Your task to perform on an android device: uninstall "Messenger Lite" Image 0: 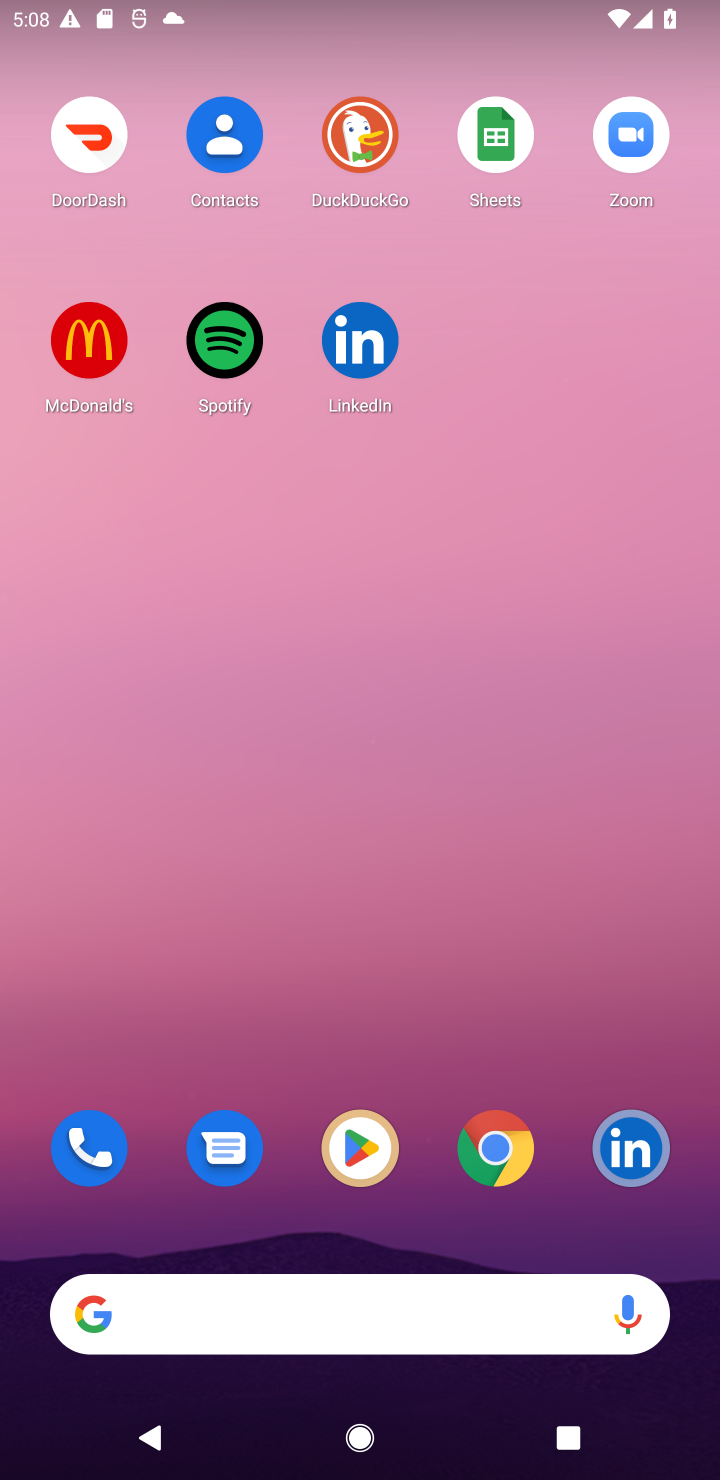
Step 0: drag from (296, 1213) to (177, 25)
Your task to perform on an android device: uninstall "Messenger Lite" Image 1: 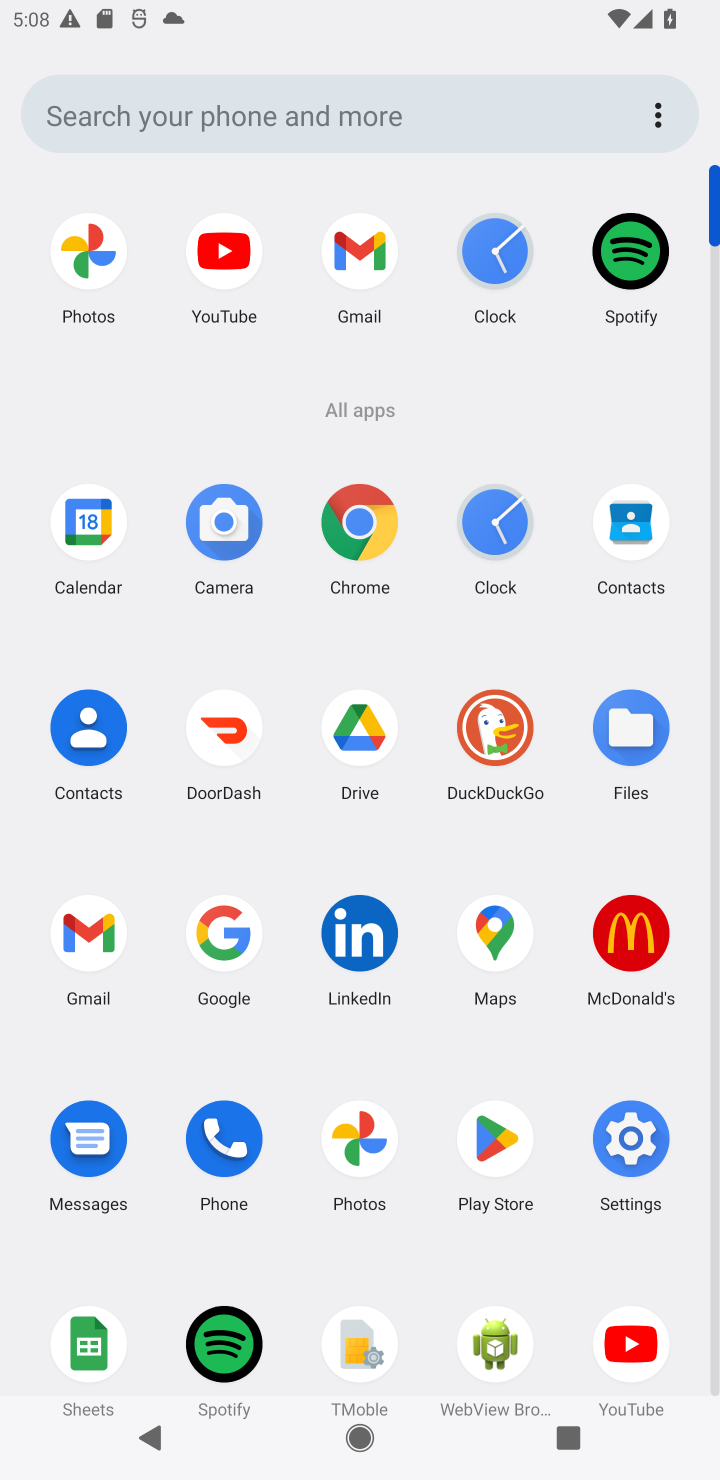
Step 1: click (515, 1129)
Your task to perform on an android device: uninstall "Messenger Lite" Image 2: 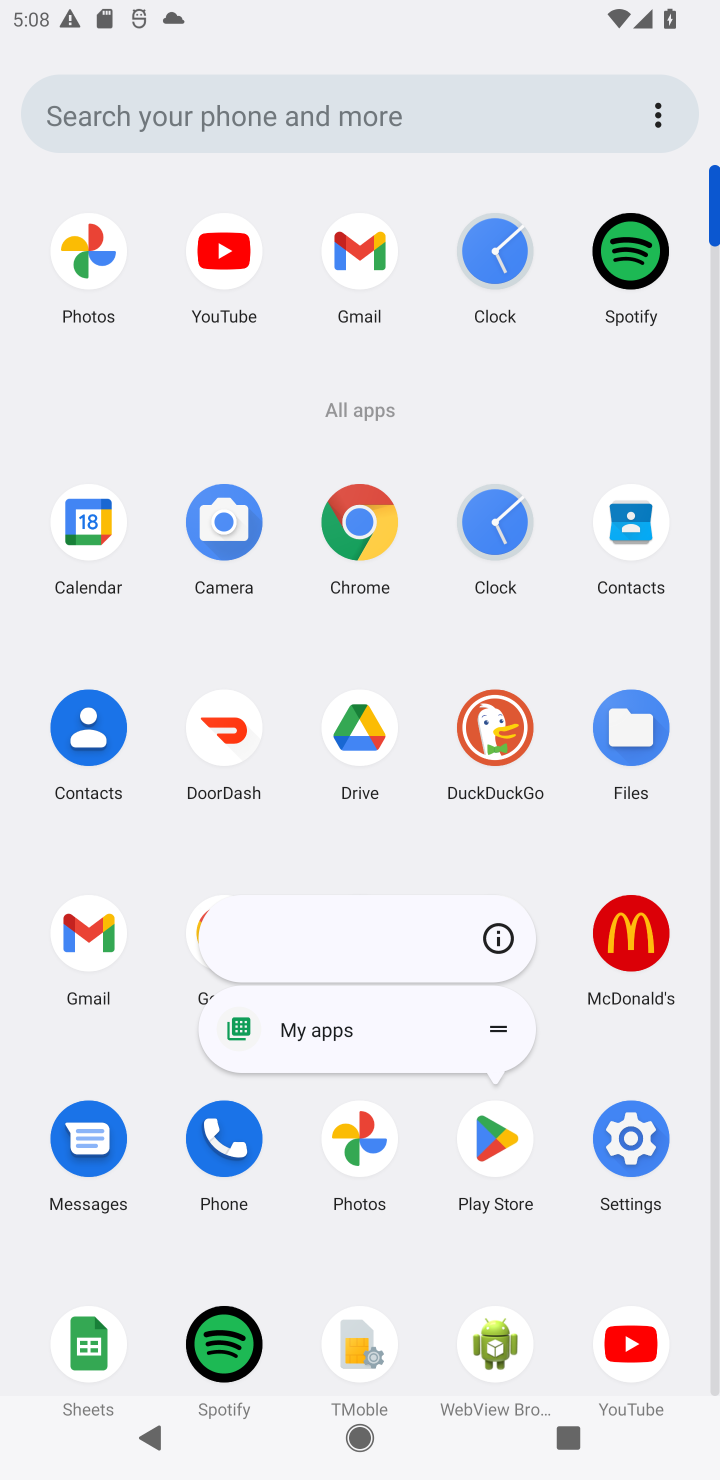
Step 2: click (484, 1153)
Your task to perform on an android device: uninstall "Messenger Lite" Image 3: 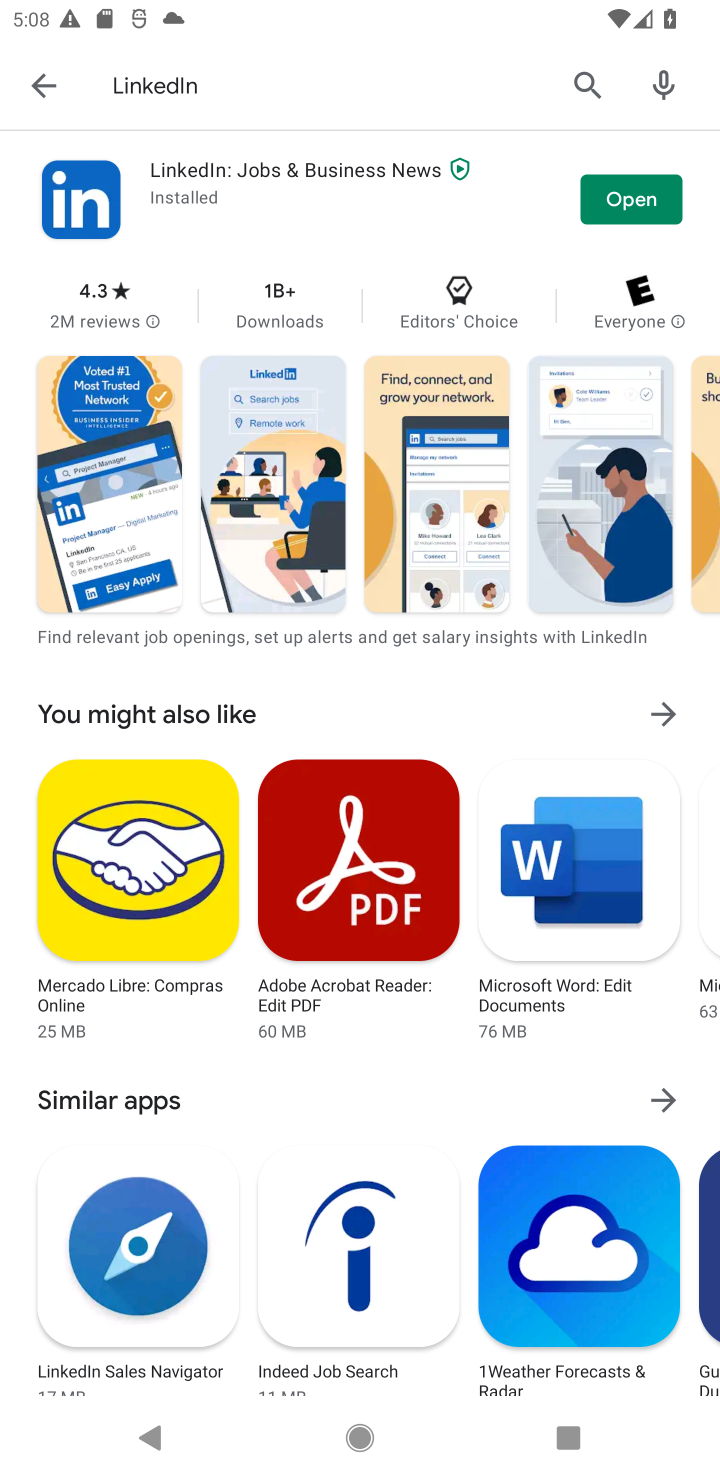
Step 3: press back button
Your task to perform on an android device: uninstall "Messenger Lite" Image 4: 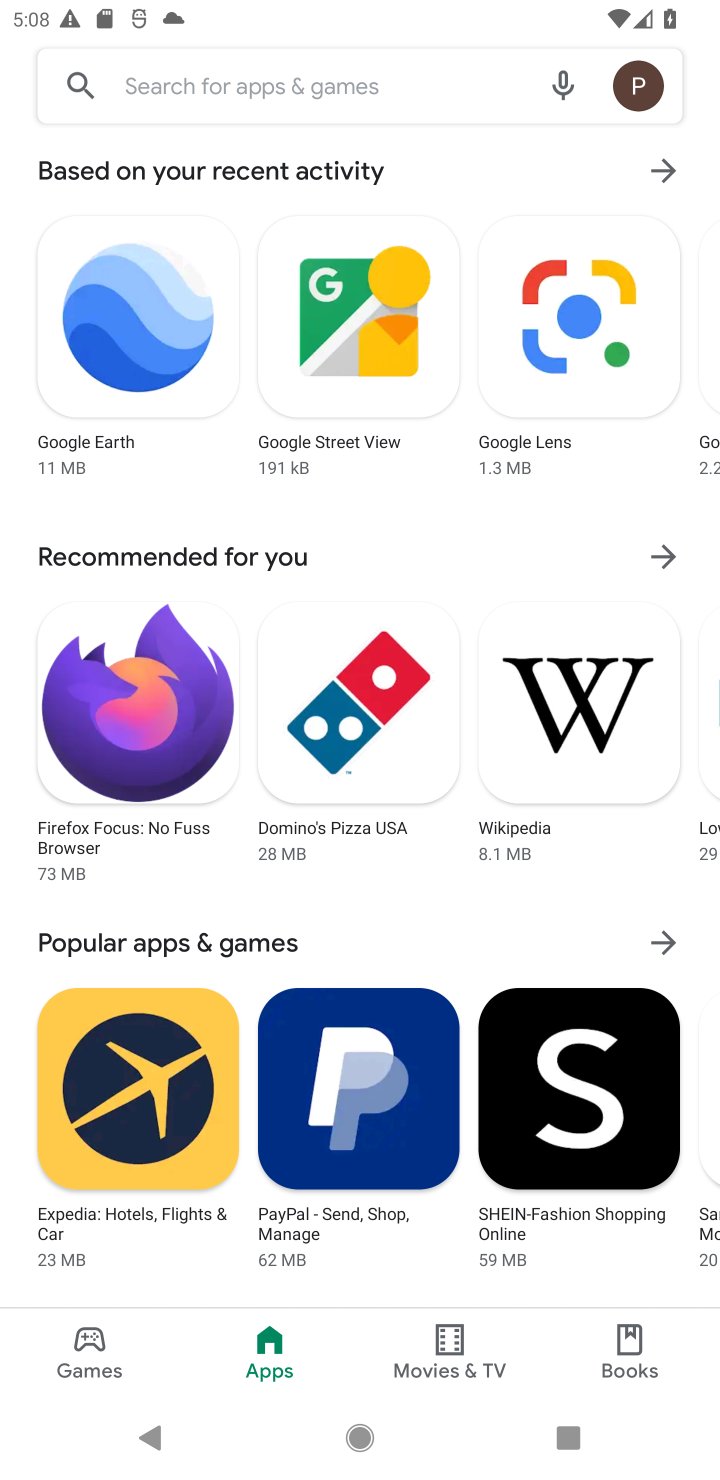
Step 4: click (385, 87)
Your task to perform on an android device: uninstall "Messenger Lite" Image 5: 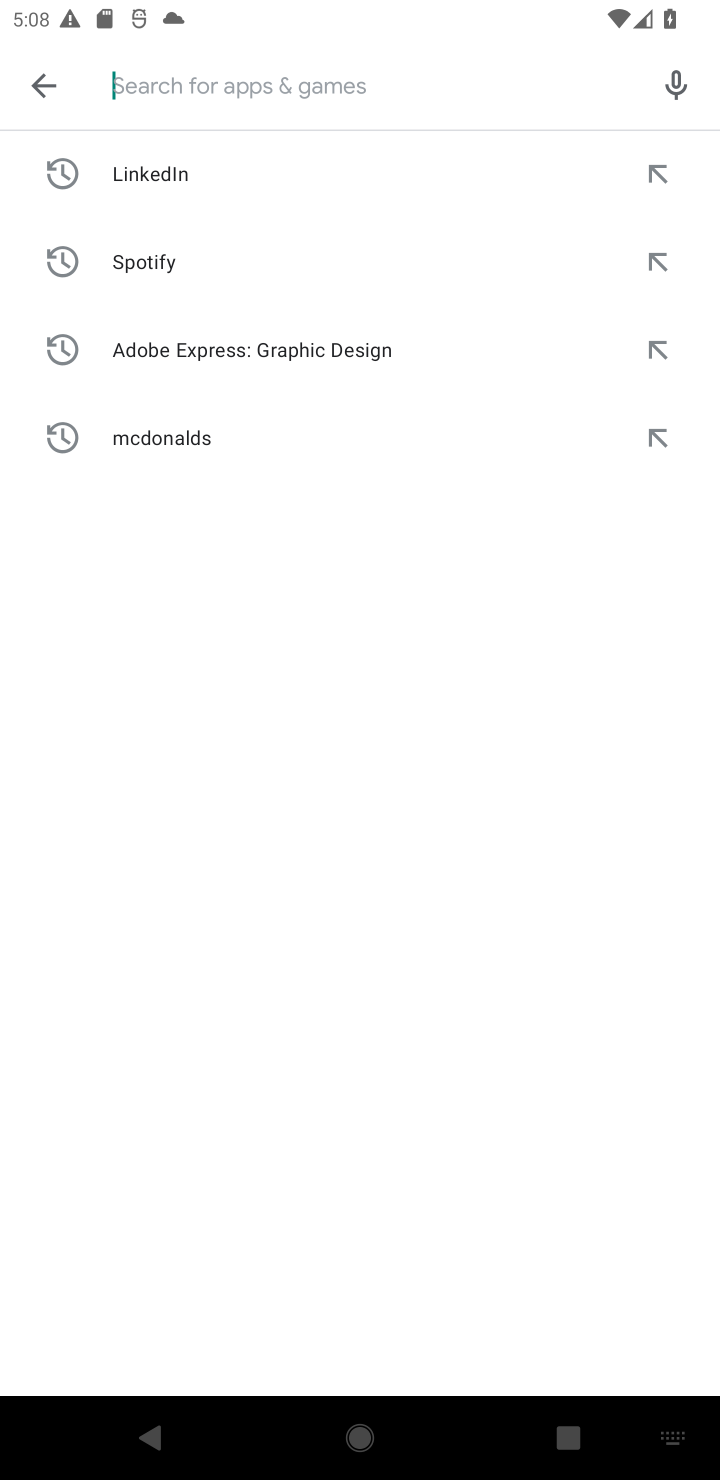
Step 5: type "Messenger Lite"
Your task to perform on an android device: uninstall "Messenger Lite" Image 6: 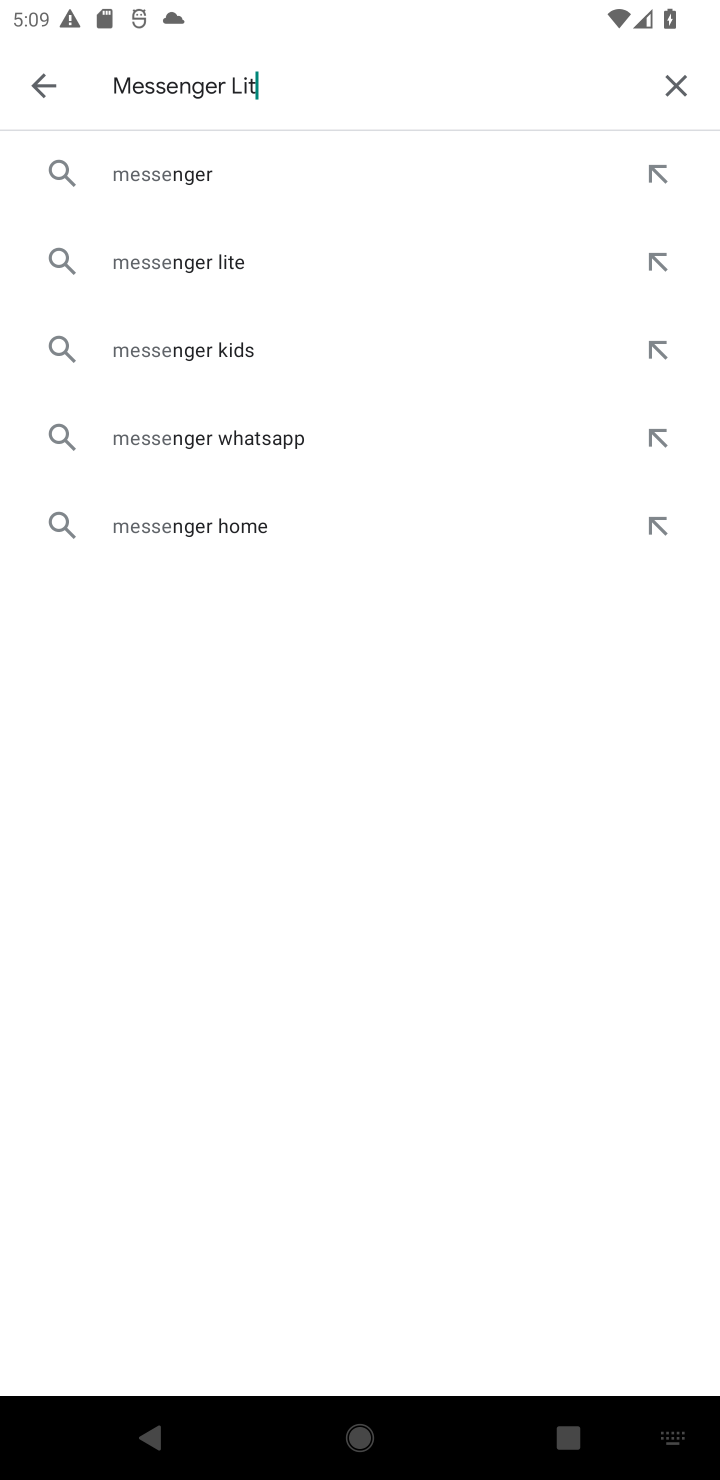
Step 6: press enter
Your task to perform on an android device: uninstall "Messenger Lite" Image 7: 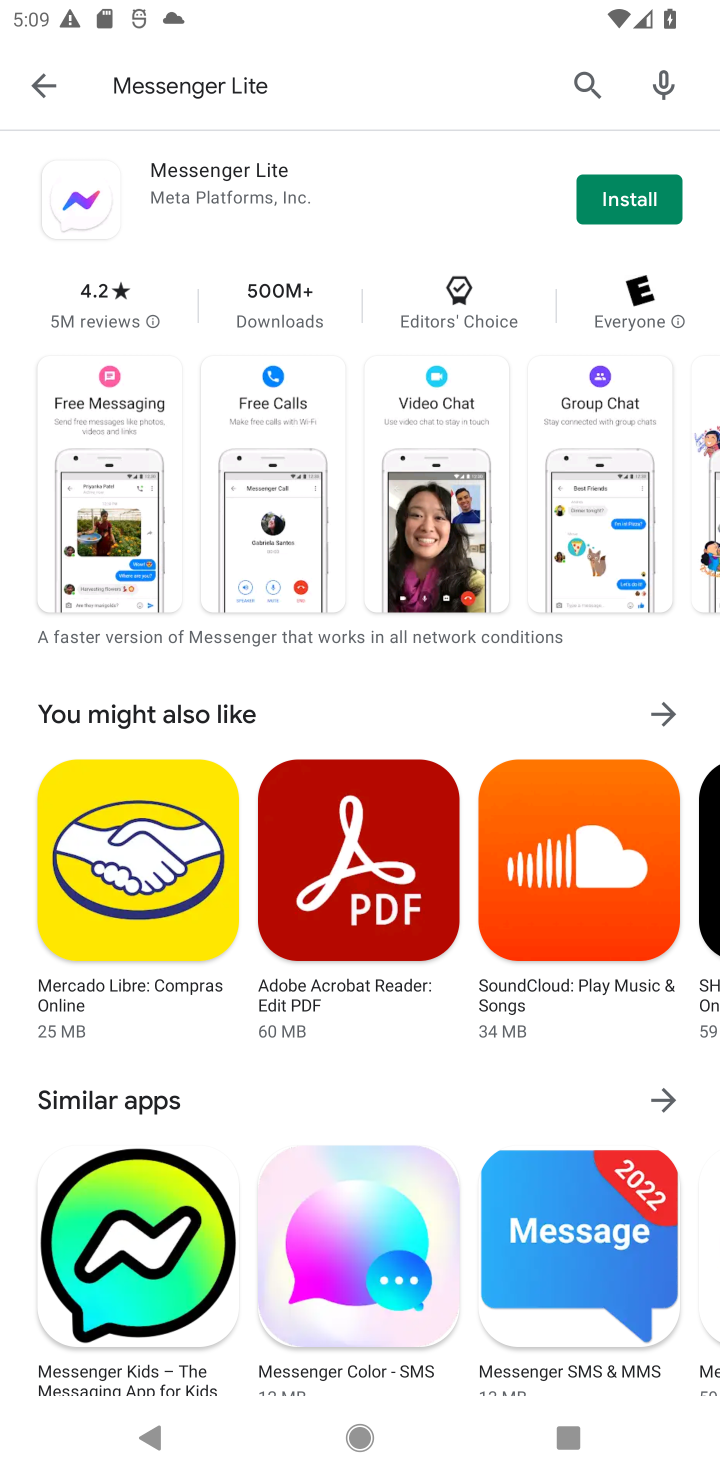
Step 7: task complete